Your task to perform on an android device: all mails in gmail Image 0: 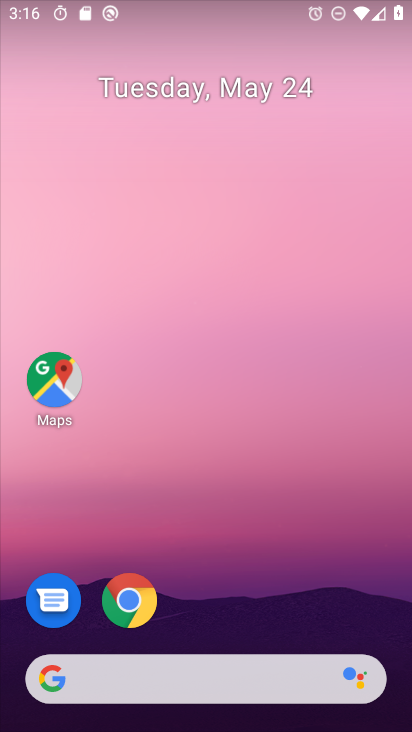
Step 0: drag from (260, 562) to (259, 129)
Your task to perform on an android device: all mails in gmail Image 1: 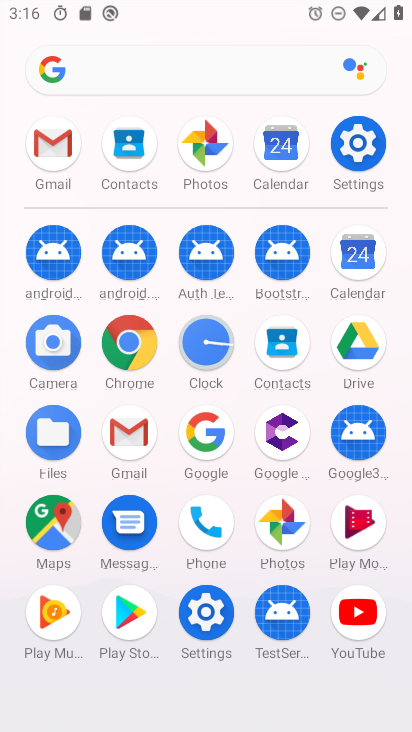
Step 1: click (53, 136)
Your task to perform on an android device: all mails in gmail Image 2: 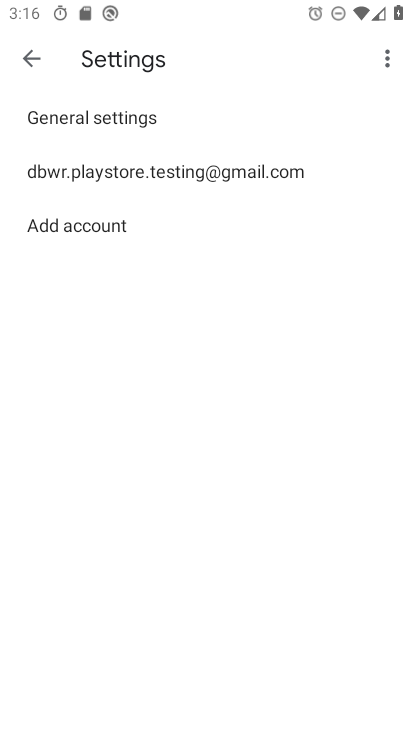
Step 2: click (34, 67)
Your task to perform on an android device: all mails in gmail Image 3: 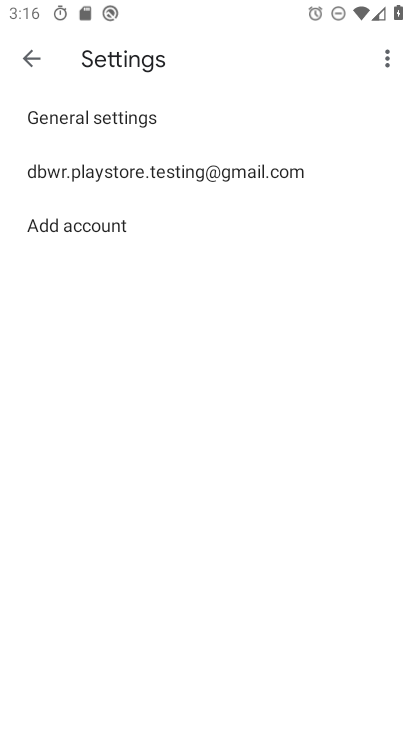
Step 3: click (34, 66)
Your task to perform on an android device: all mails in gmail Image 4: 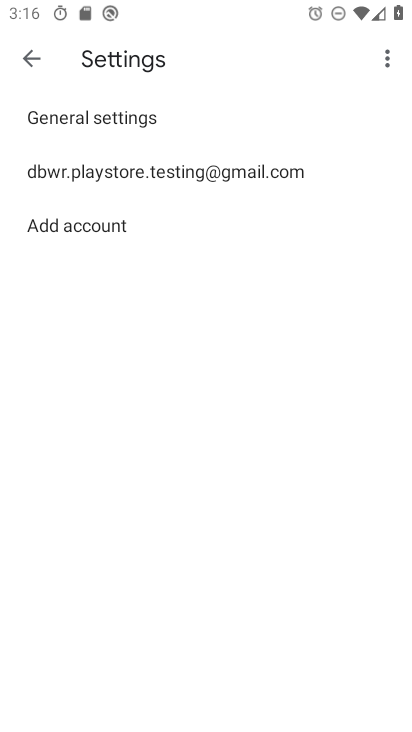
Step 4: click (34, 58)
Your task to perform on an android device: all mails in gmail Image 5: 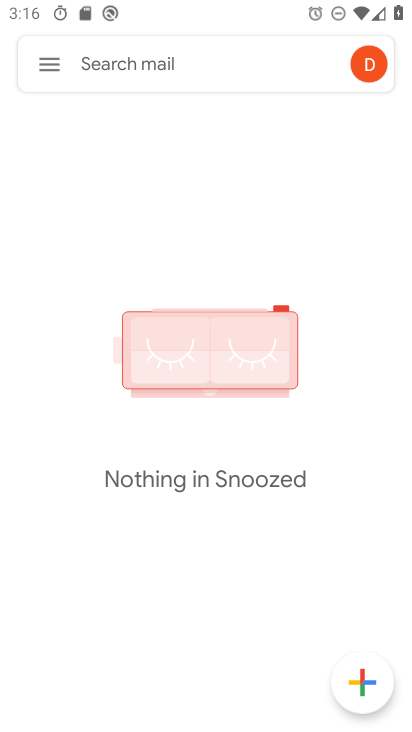
Step 5: click (34, 62)
Your task to perform on an android device: all mails in gmail Image 6: 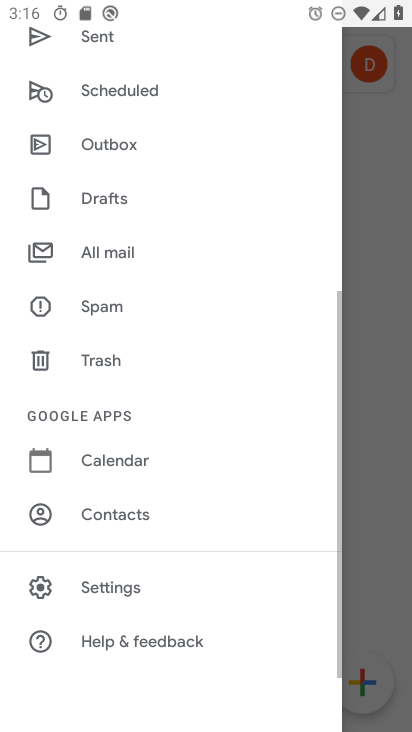
Step 6: click (118, 252)
Your task to perform on an android device: all mails in gmail Image 7: 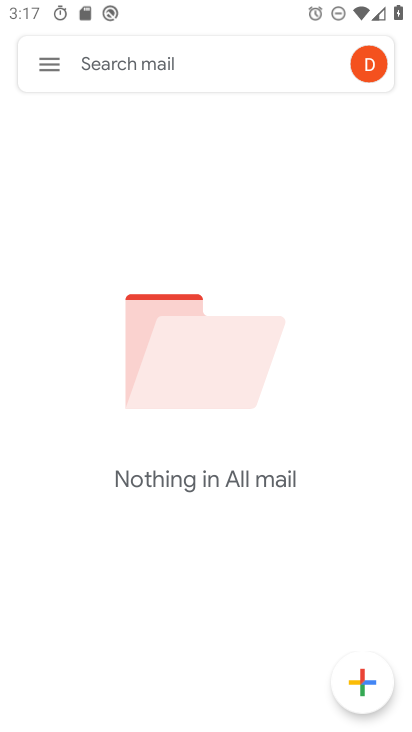
Step 7: task complete